Your task to perform on an android device: Search for the best rated vacuums on Target Image 0: 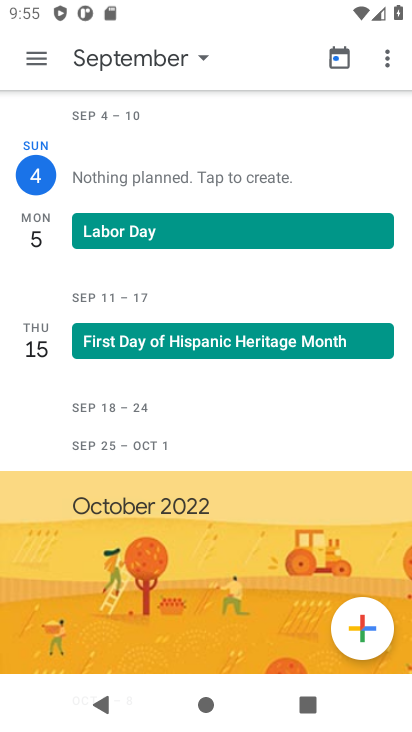
Step 0: press home button
Your task to perform on an android device: Search for the best rated vacuums on Target Image 1: 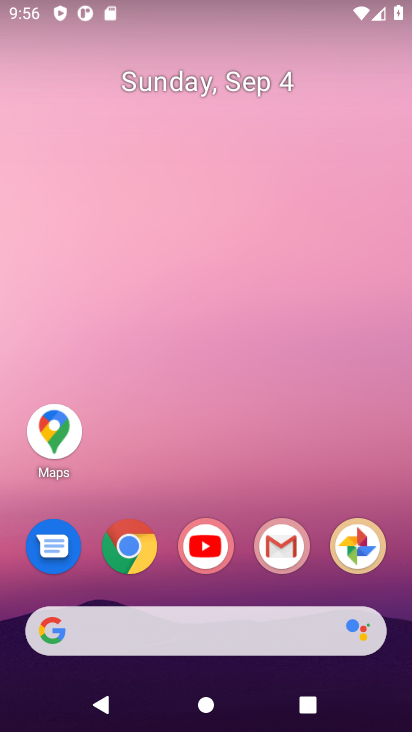
Step 1: click (133, 556)
Your task to perform on an android device: Search for the best rated vacuums on Target Image 2: 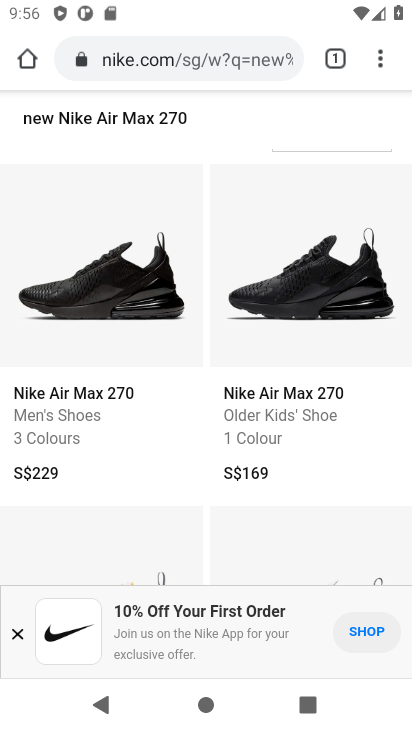
Step 2: click (197, 64)
Your task to perform on an android device: Search for the best rated vacuums on Target Image 3: 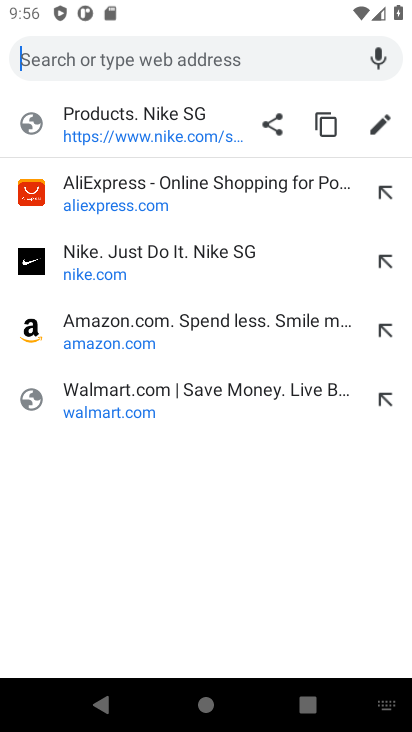
Step 3: type "Target"
Your task to perform on an android device: Search for the best rated vacuums on Target Image 4: 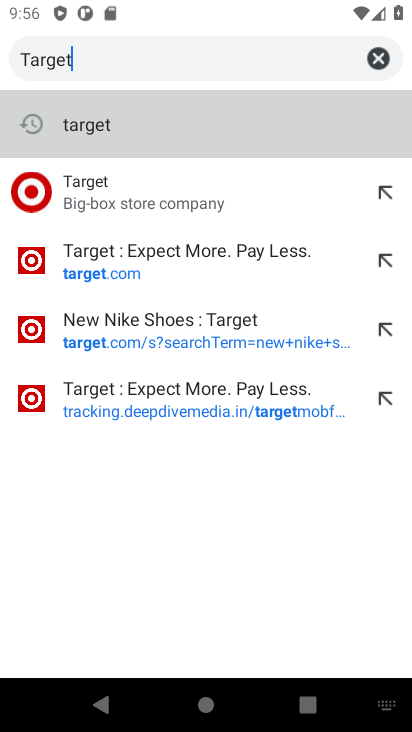
Step 4: click (111, 200)
Your task to perform on an android device: Search for the best rated vacuums on Target Image 5: 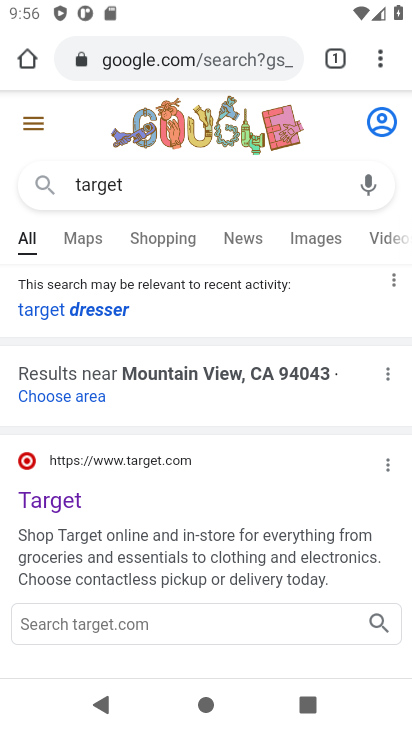
Step 5: click (55, 502)
Your task to perform on an android device: Search for the best rated vacuums on Target Image 6: 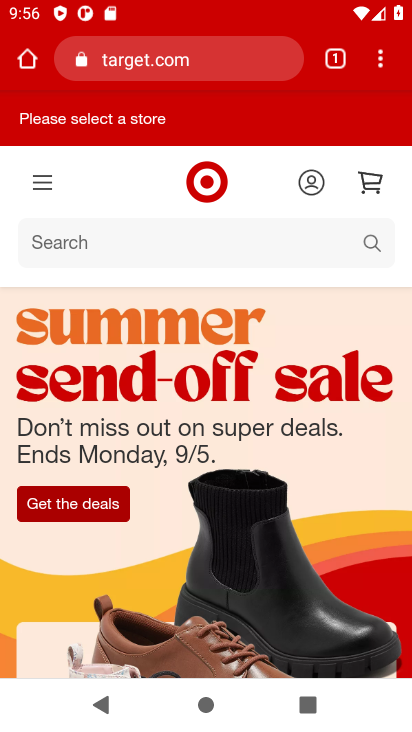
Step 6: click (362, 245)
Your task to perform on an android device: Search for the best rated vacuums on Target Image 7: 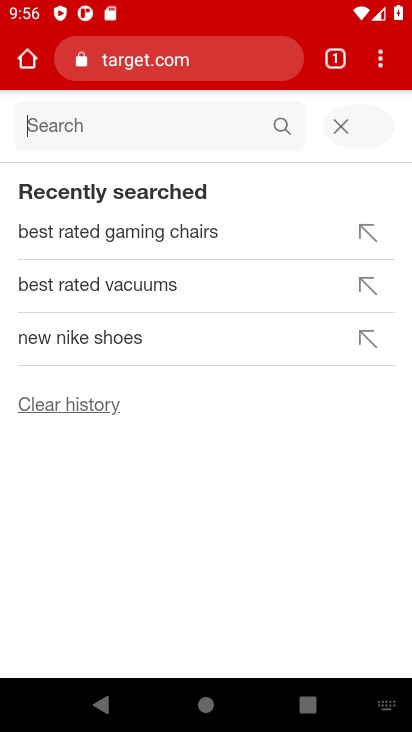
Step 7: type "best rated vacuums"
Your task to perform on an android device: Search for the best rated vacuums on Target Image 8: 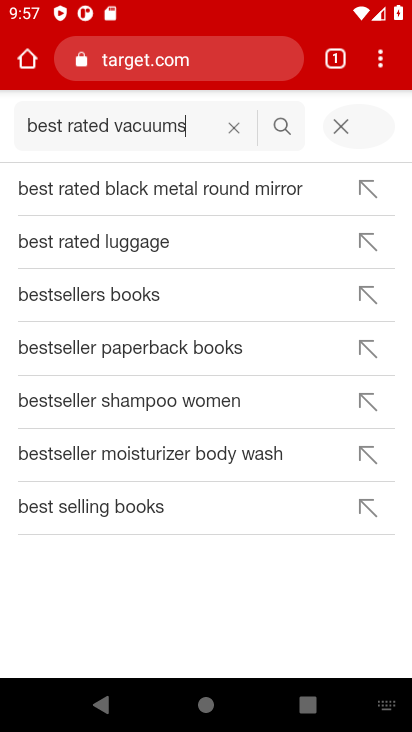
Step 8: click (284, 125)
Your task to perform on an android device: Search for the best rated vacuums on Target Image 9: 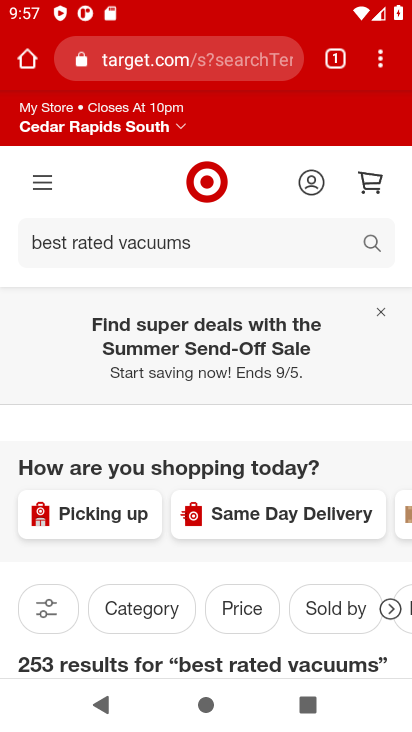
Step 9: task complete